Your task to perform on an android device: Open display settings Image 0: 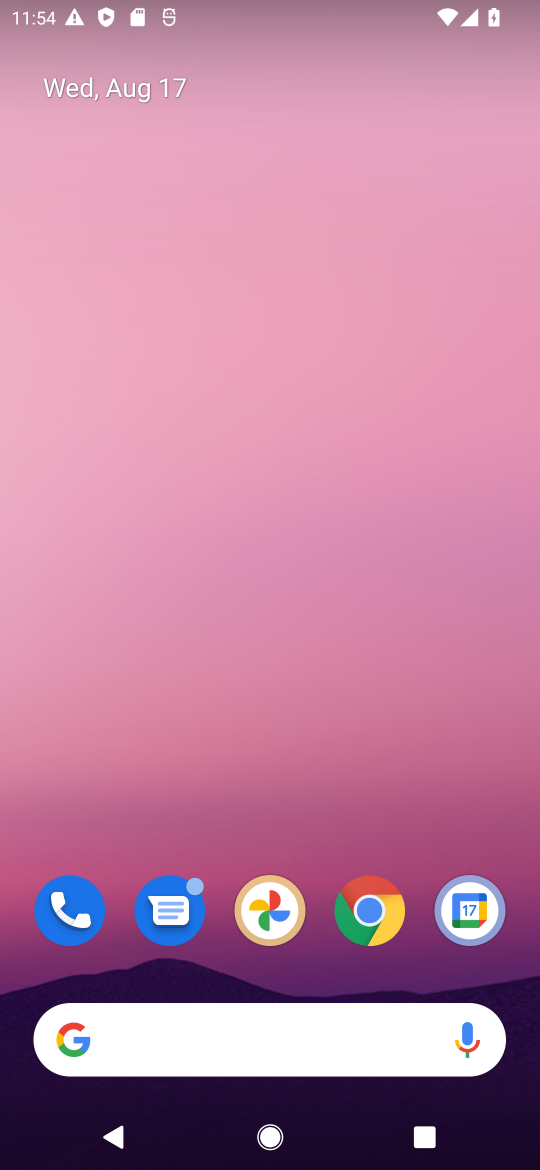
Step 0: drag from (298, 936) to (345, 314)
Your task to perform on an android device: Open display settings Image 1: 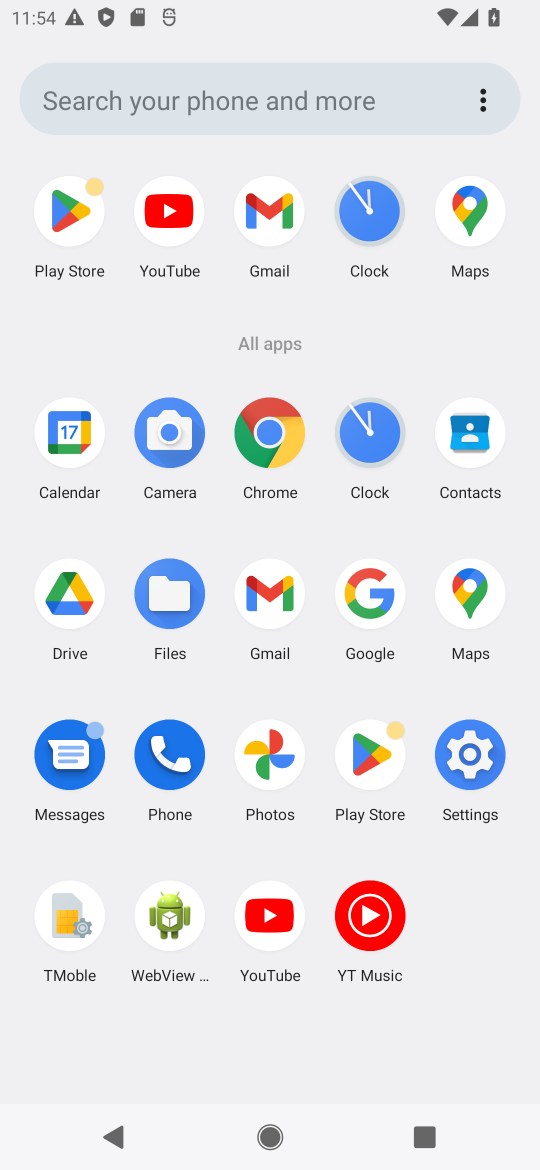
Step 1: click (451, 757)
Your task to perform on an android device: Open display settings Image 2: 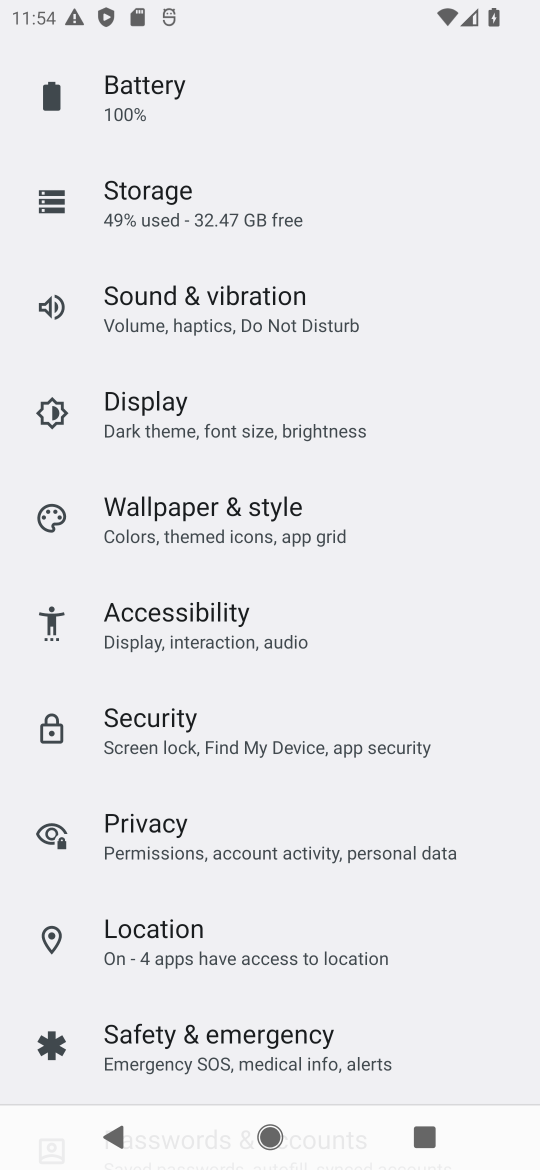
Step 2: click (194, 435)
Your task to perform on an android device: Open display settings Image 3: 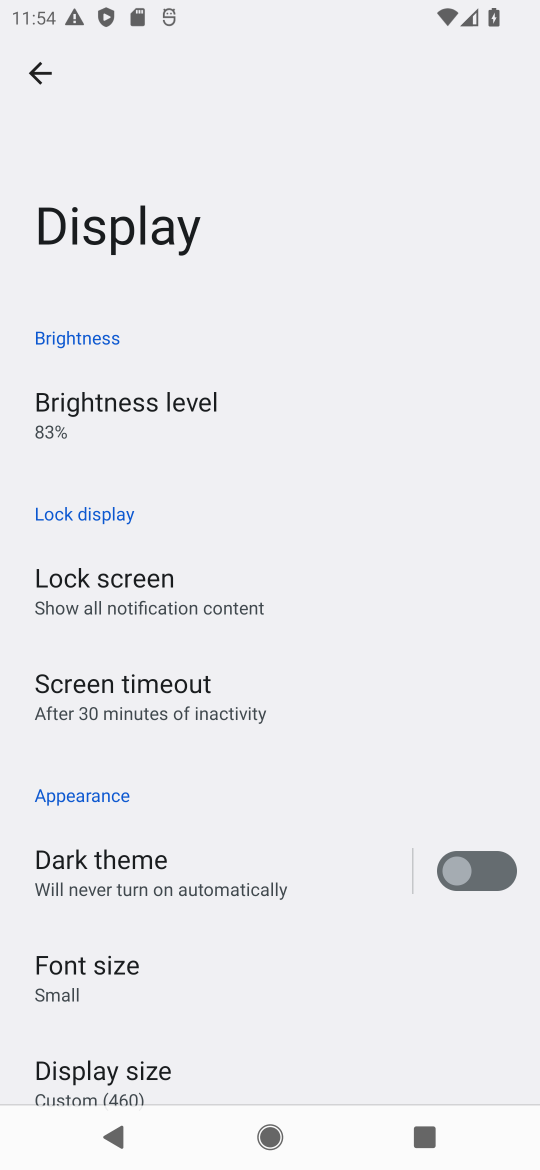
Step 3: task complete